Your task to perform on an android device: Go to Google Image 0: 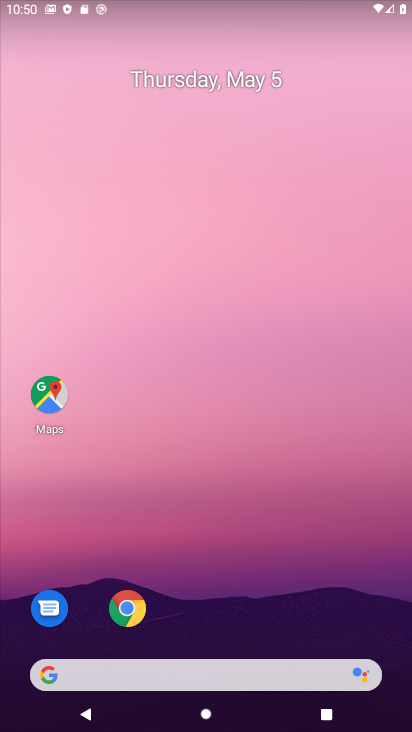
Step 0: click (206, 678)
Your task to perform on an android device: Go to Google Image 1: 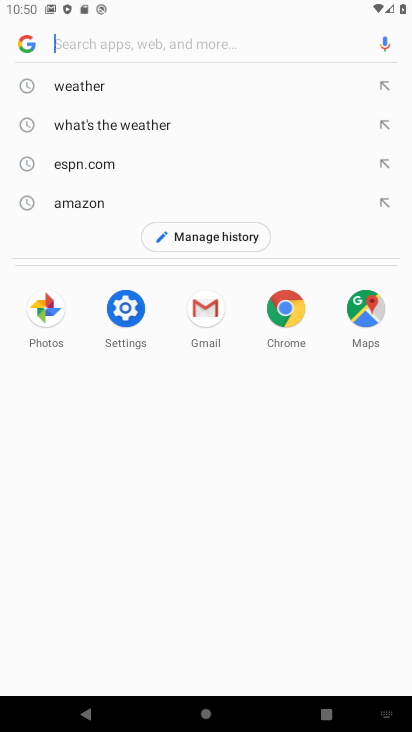
Step 1: task complete